Your task to perform on an android device: turn on the 12-hour format for clock Image 0: 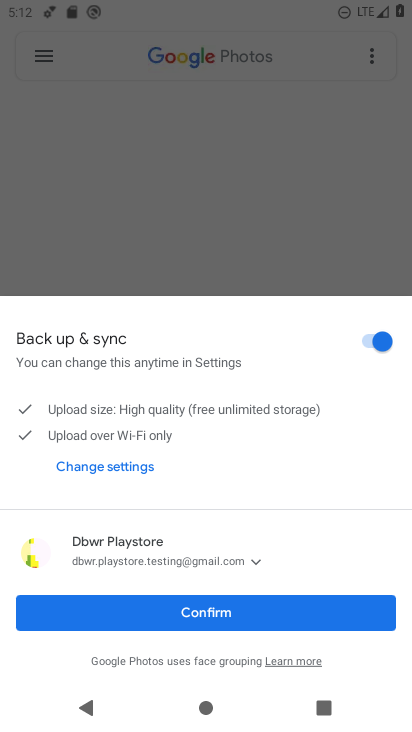
Step 0: press home button
Your task to perform on an android device: turn on the 12-hour format for clock Image 1: 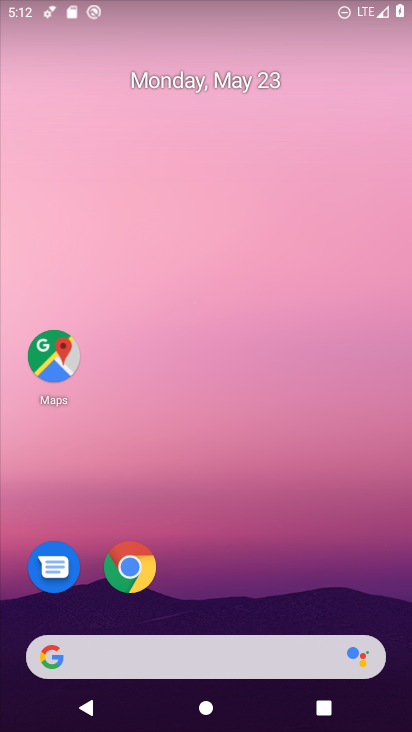
Step 1: drag from (268, 589) to (296, 135)
Your task to perform on an android device: turn on the 12-hour format for clock Image 2: 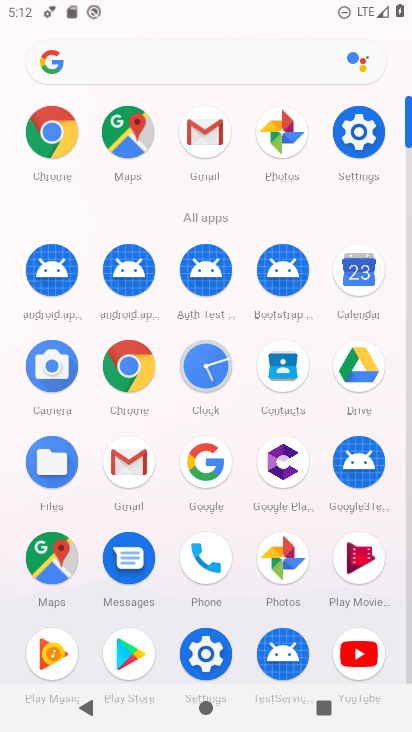
Step 2: click (205, 368)
Your task to perform on an android device: turn on the 12-hour format for clock Image 3: 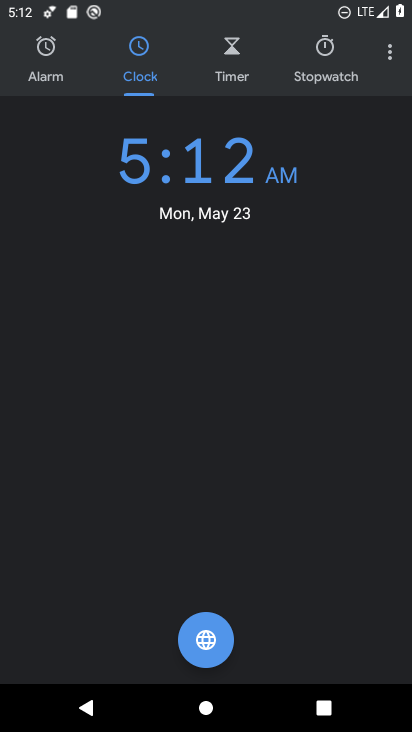
Step 3: click (390, 58)
Your task to perform on an android device: turn on the 12-hour format for clock Image 4: 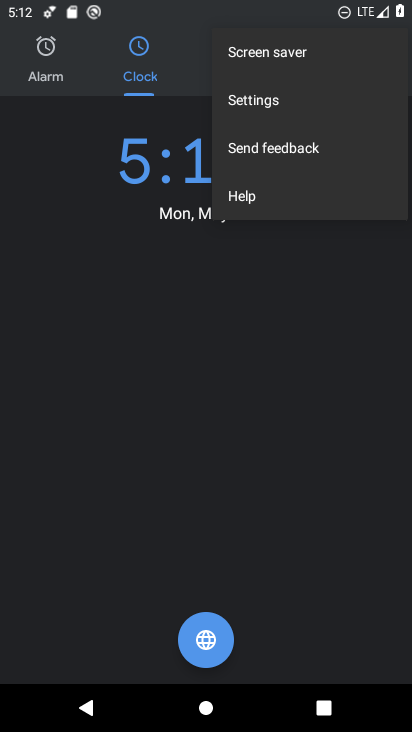
Step 4: click (283, 103)
Your task to perform on an android device: turn on the 12-hour format for clock Image 5: 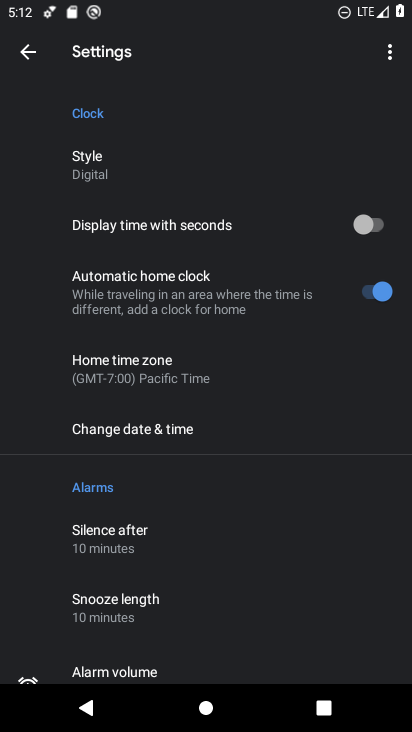
Step 5: click (181, 435)
Your task to perform on an android device: turn on the 12-hour format for clock Image 6: 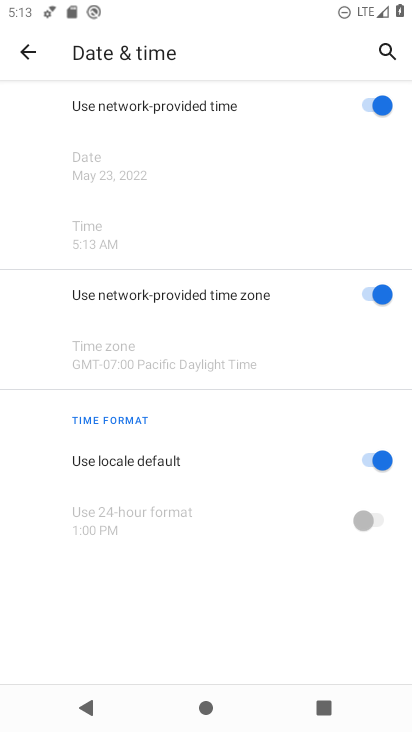
Step 6: task complete